Your task to perform on an android device: Add "razer deathadder" to the cart on newegg.com, then select checkout. Image 0: 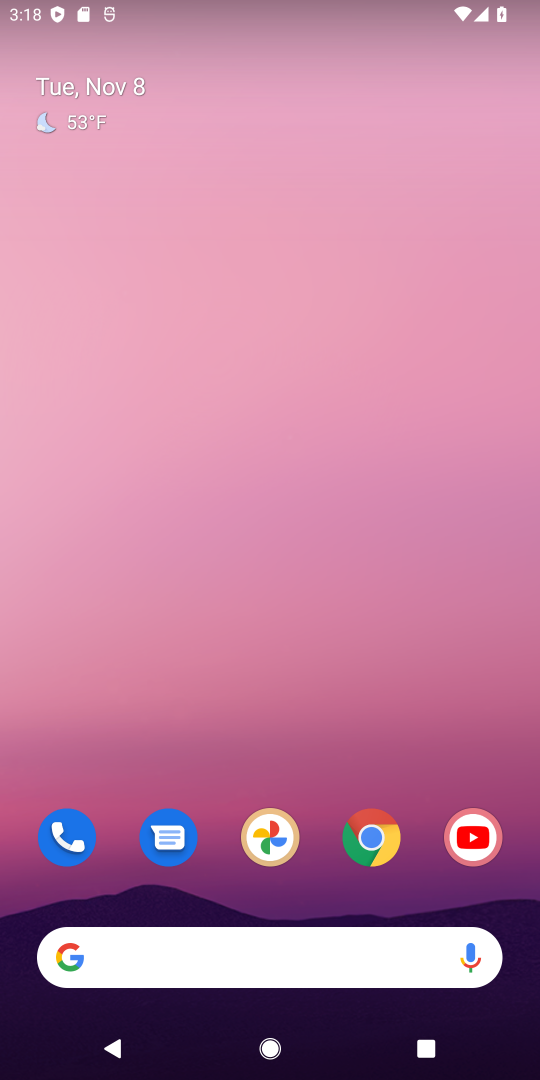
Step 0: click (363, 848)
Your task to perform on an android device: Add "razer deathadder" to the cart on newegg.com, then select checkout. Image 1: 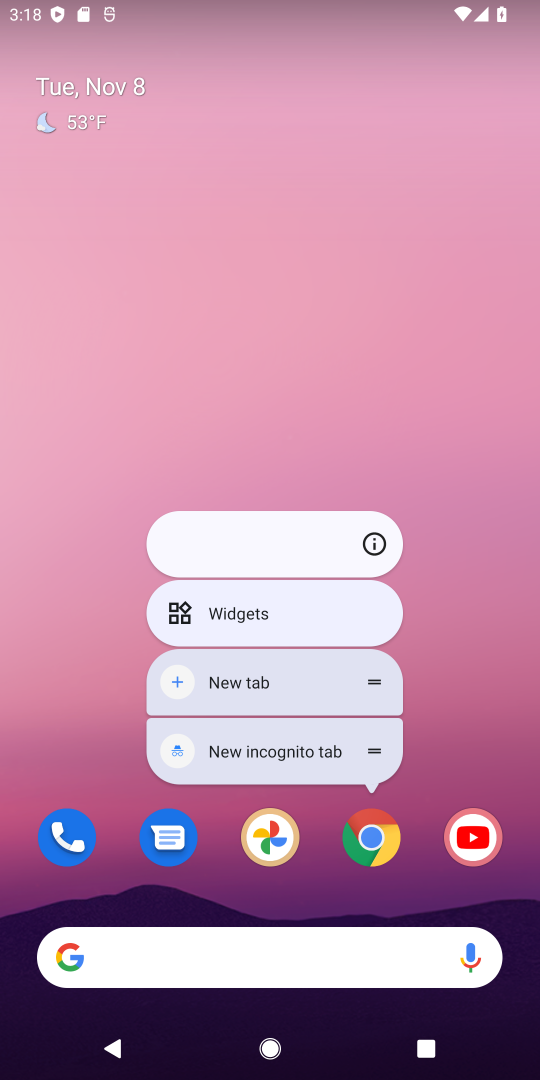
Step 1: click (363, 848)
Your task to perform on an android device: Add "razer deathadder" to the cart on newegg.com, then select checkout. Image 2: 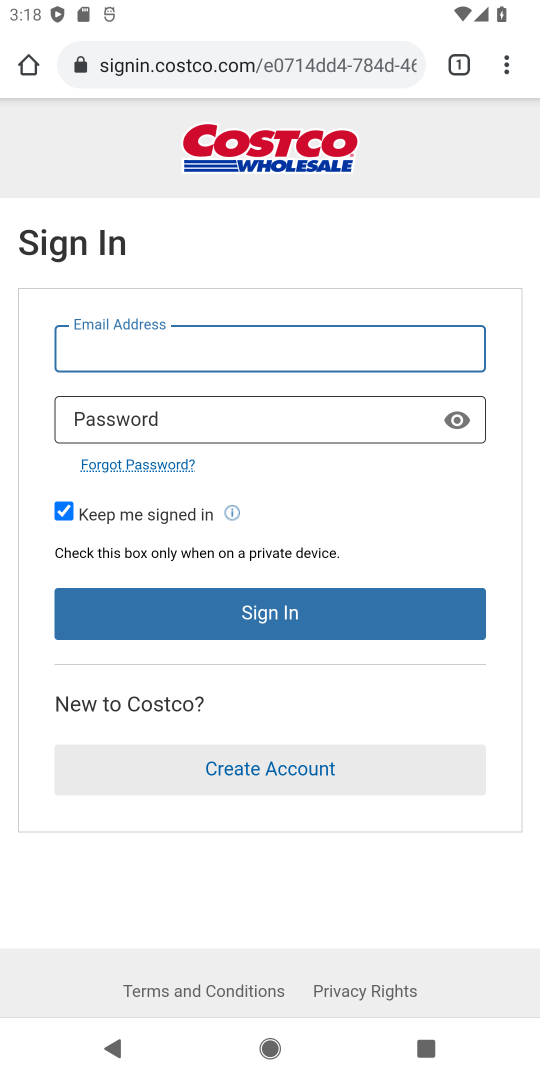
Step 2: click (122, 64)
Your task to perform on an android device: Add "razer deathadder" to the cart on newegg.com, then select checkout. Image 3: 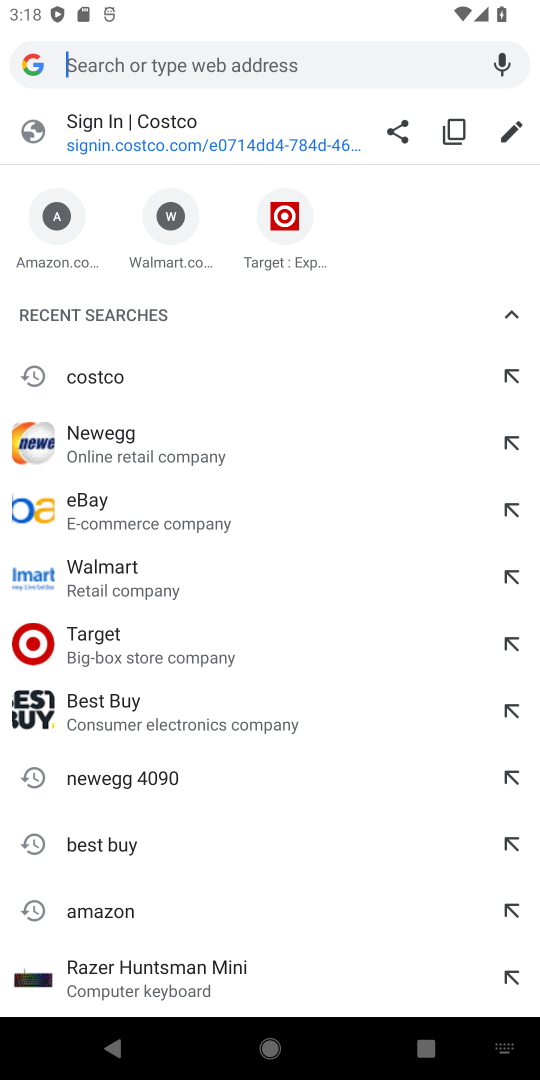
Step 3: click (121, 453)
Your task to perform on an android device: Add "razer deathadder" to the cart on newegg.com, then select checkout. Image 4: 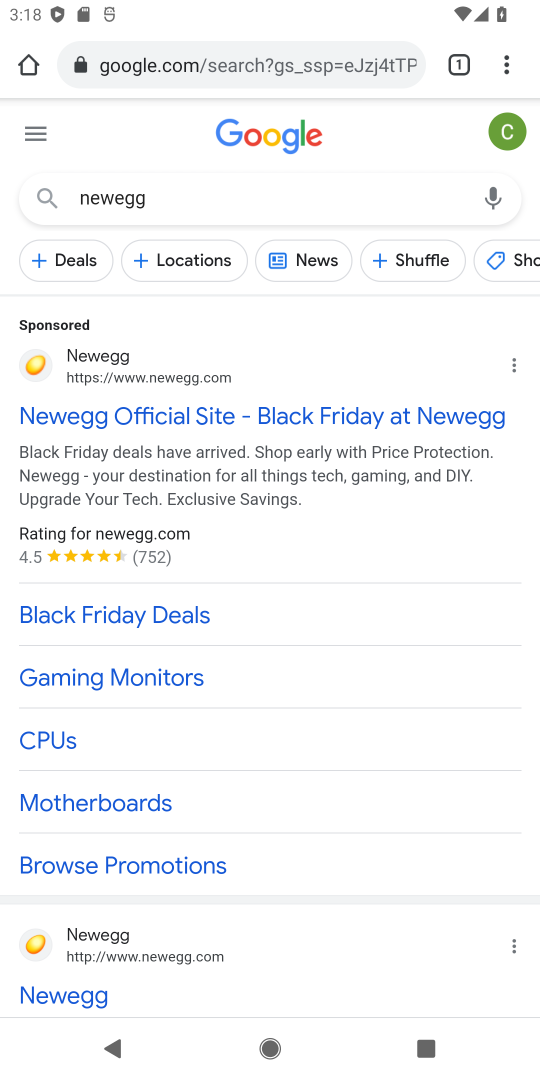
Step 4: click (79, 1004)
Your task to perform on an android device: Add "razer deathadder" to the cart on newegg.com, then select checkout. Image 5: 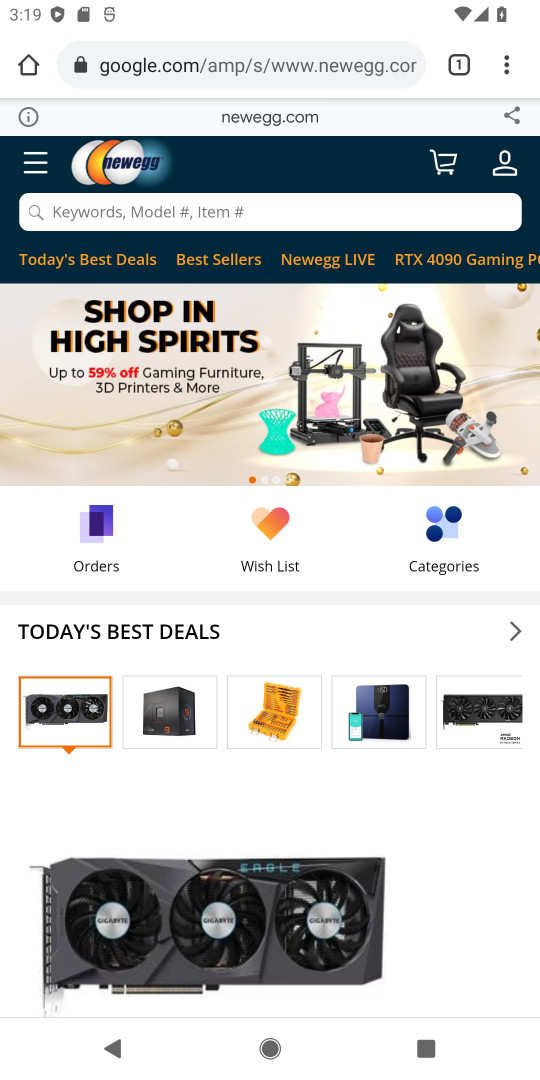
Step 5: click (179, 219)
Your task to perform on an android device: Add "razer deathadder" to the cart on newegg.com, then select checkout. Image 6: 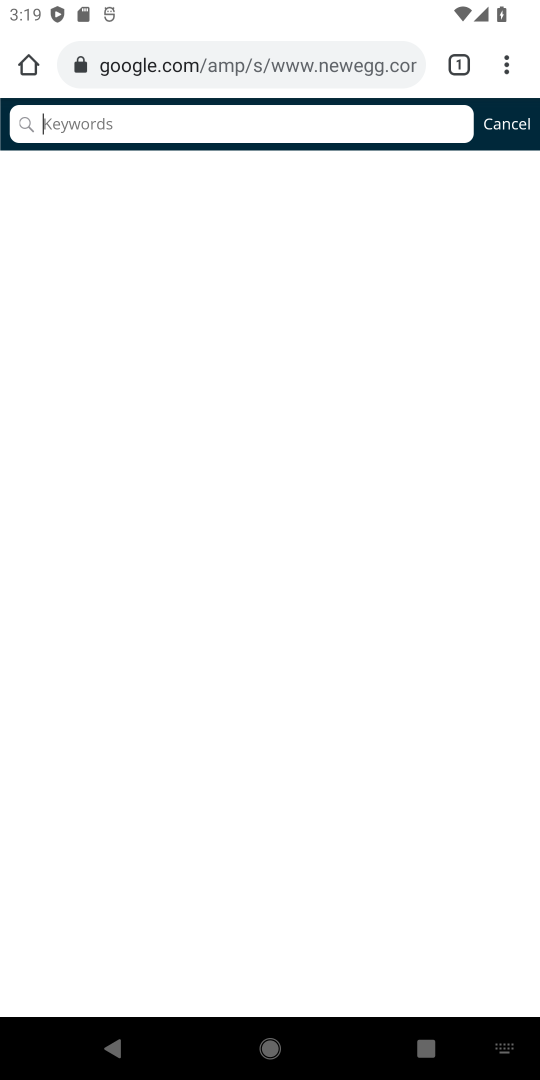
Step 6: type "razer deathadder"
Your task to perform on an android device: Add "razer deathadder" to the cart on newegg.com, then select checkout. Image 7: 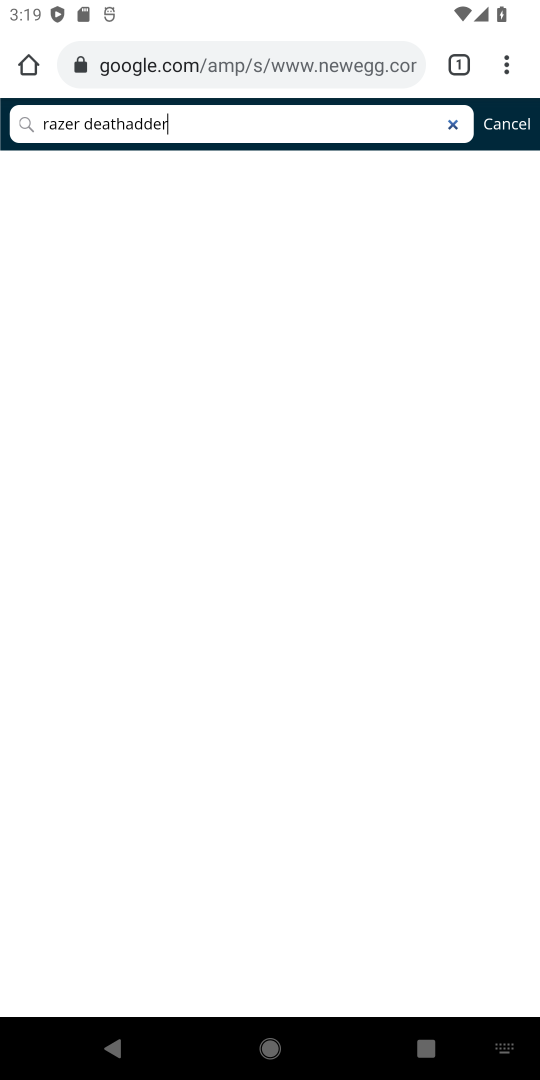
Step 7: type ""
Your task to perform on an android device: Add "razer deathadder" to the cart on newegg.com, then select checkout. Image 8: 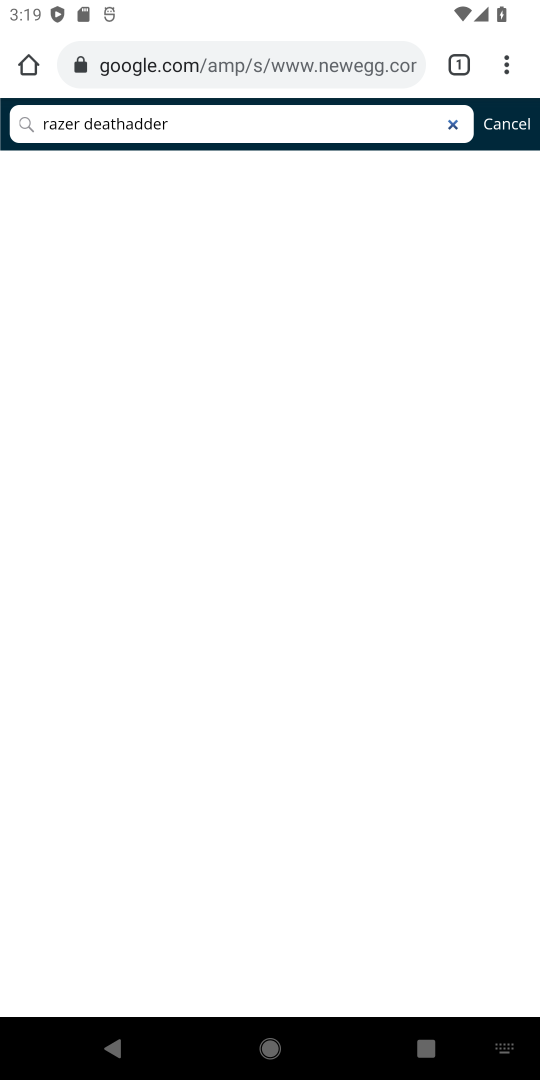
Step 8: click (447, 121)
Your task to perform on an android device: Add "razer deathadder" to the cart on newegg.com, then select checkout. Image 9: 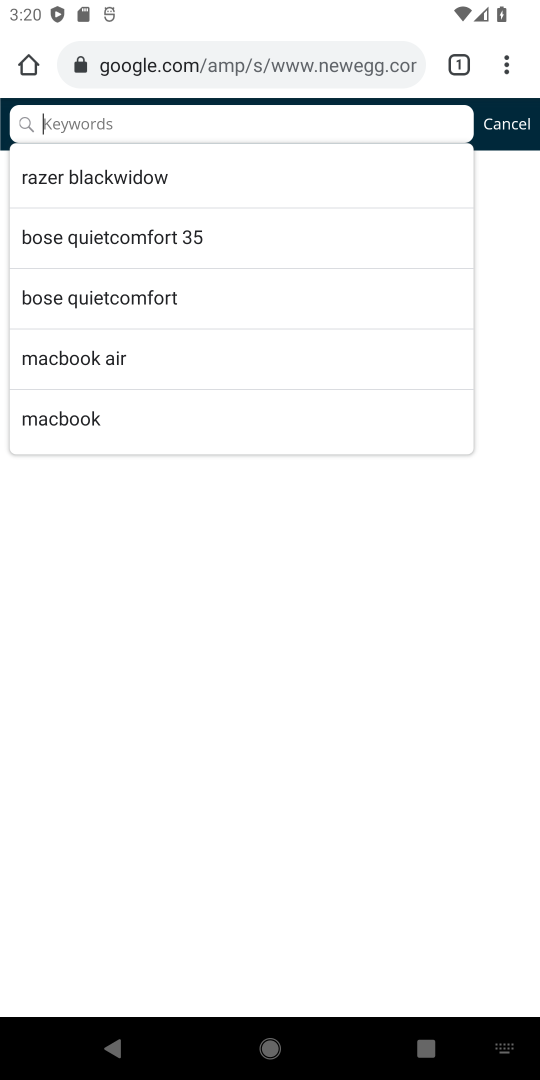
Step 9: type "razer deathadder"
Your task to perform on an android device: Add "razer deathadder" to the cart on newegg.com, then select checkout. Image 10: 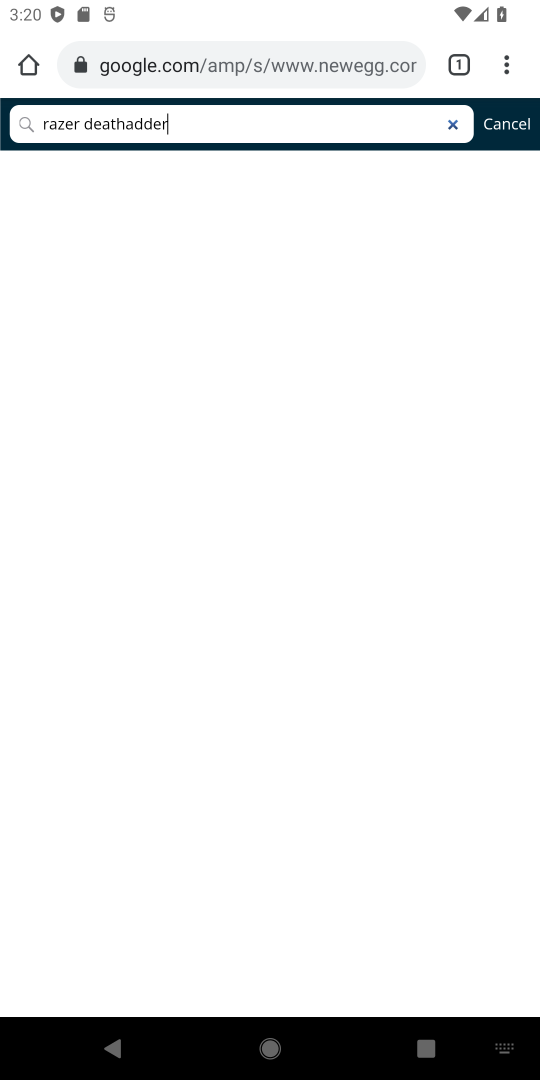
Step 10: click (15, 119)
Your task to perform on an android device: Add "razer deathadder" to the cart on newegg.com, then select checkout. Image 11: 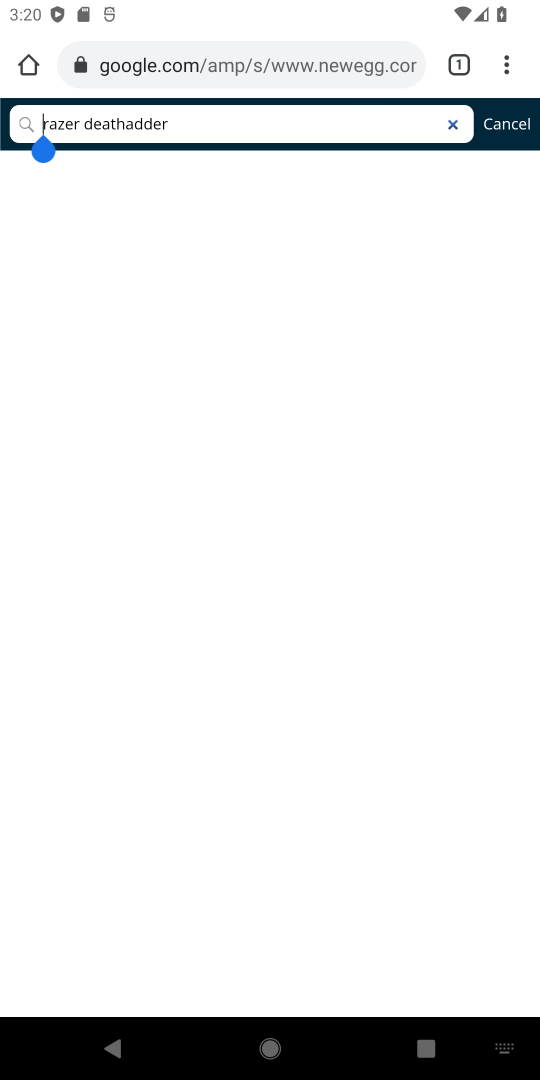
Step 11: click (210, 130)
Your task to perform on an android device: Add "razer deathadder" to the cart on newegg.com, then select checkout. Image 12: 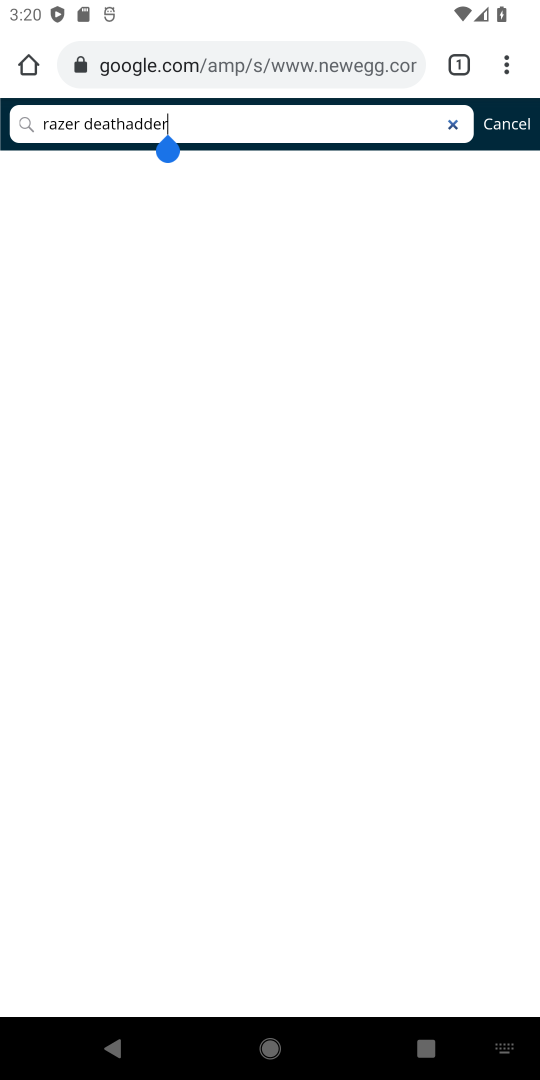
Step 12: click (209, 130)
Your task to perform on an android device: Add "razer deathadder" to the cart on newegg.com, then select checkout. Image 13: 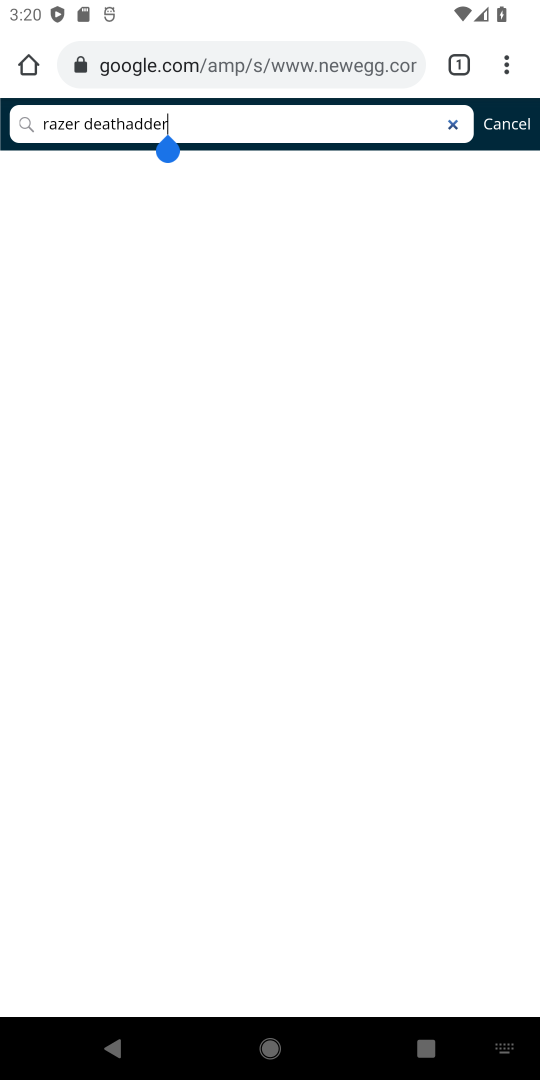
Step 13: click (453, 126)
Your task to perform on an android device: Add "razer deathadder" to the cart on newegg.com, then select checkout. Image 14: 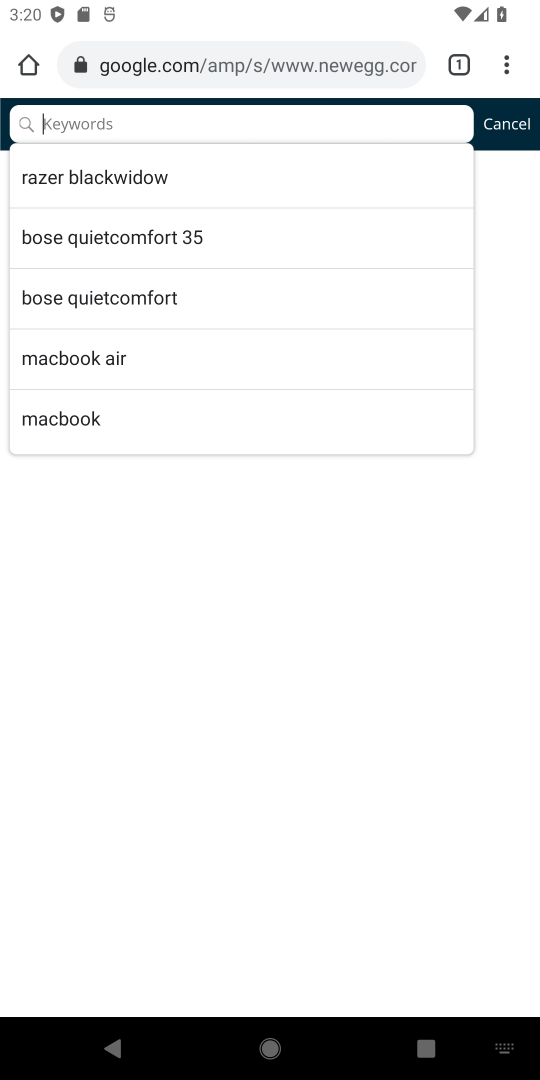
Step 14: click (195, 58)
Your task to perform on an android device: Add "razer deathadder" to the cart on newegg.com, then select checkout. Image 15: 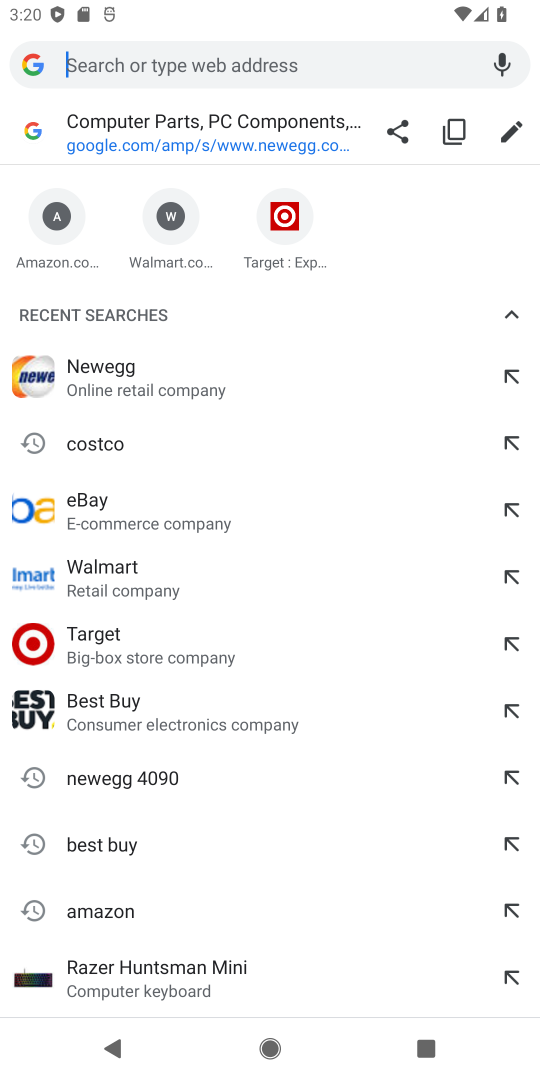
Step 15: click (100, 373)
Your task to perform on an android device: Add "razer deathadder" to the cart on newegg.com, then select checkout. Image 16: 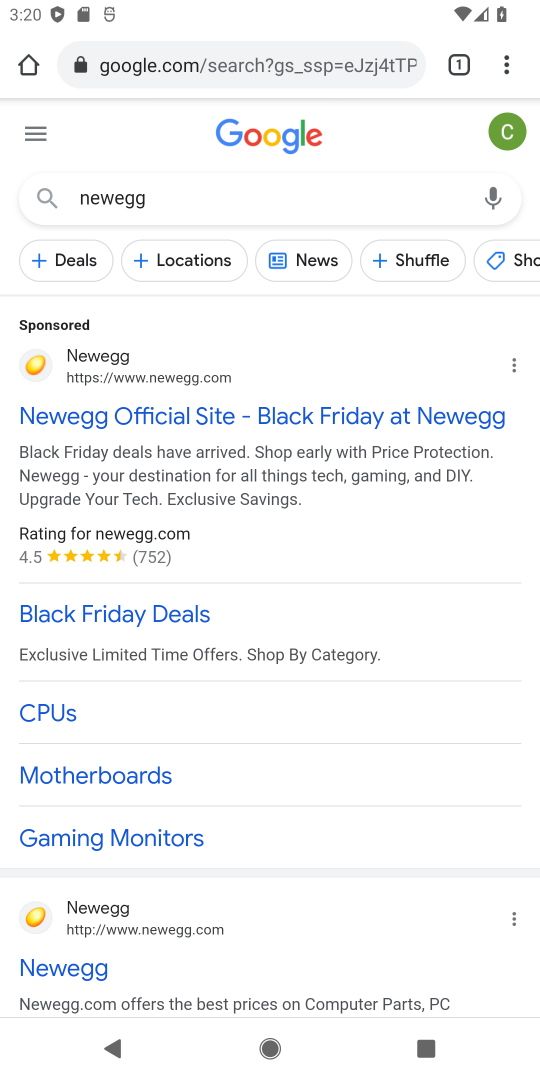
Step 16: drag from (279, 679) to (237, 335)
Your task to perform on an android device: Add "razer deathadder" to the cart on newegg.com, then select checkout. Image 17: 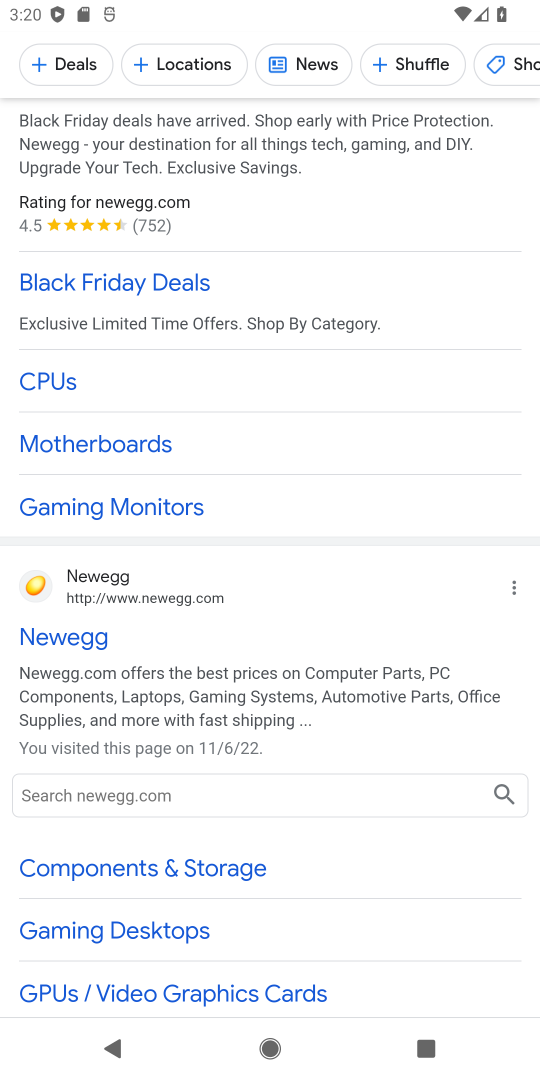
Step 17: click (78, 633)
Your task to perform on an android device: Add "razer deathadder" to the cart on newegg.com, then select checkout. Image 18: 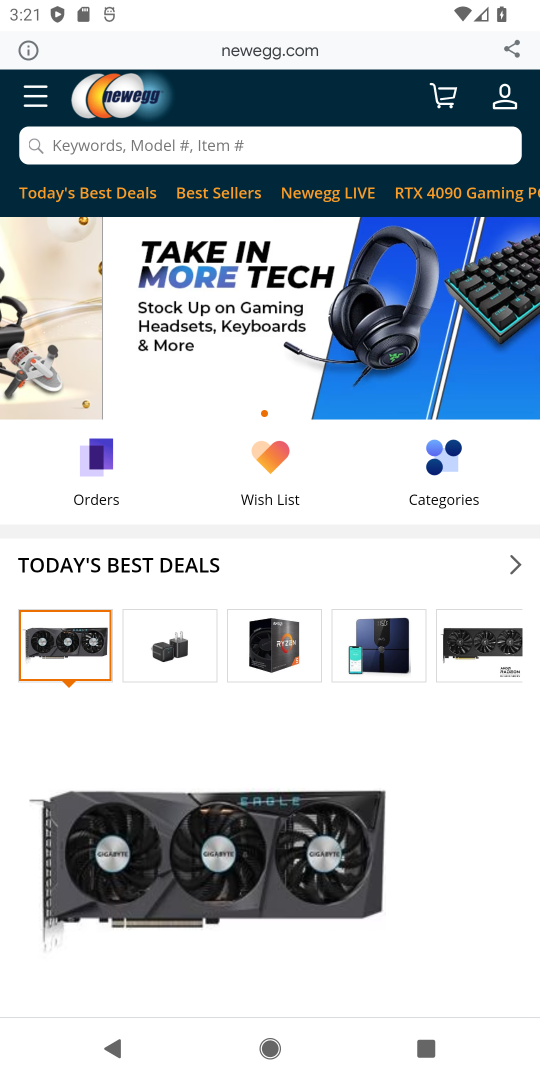
Step 18: click (173, 142)
Your task to perform on an android device: Add "razer deathadder" to the cart on newegg.com, then select checkout. Image 19: 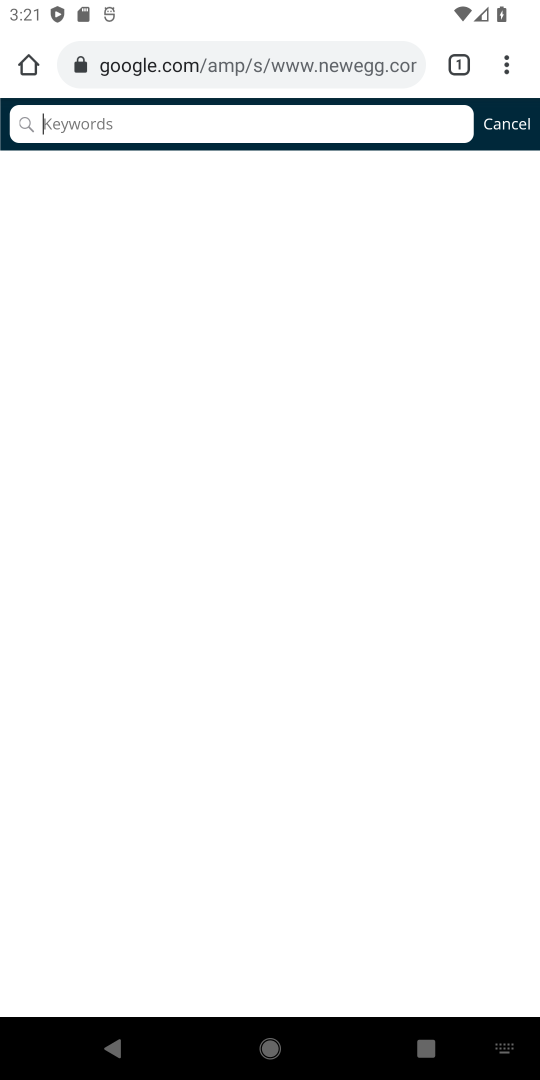
Step 19: click (65, 130)
Your task to perform on an android device: Add "razer deathadder" to the cart on newegg.com, then select checkout. Image 20: 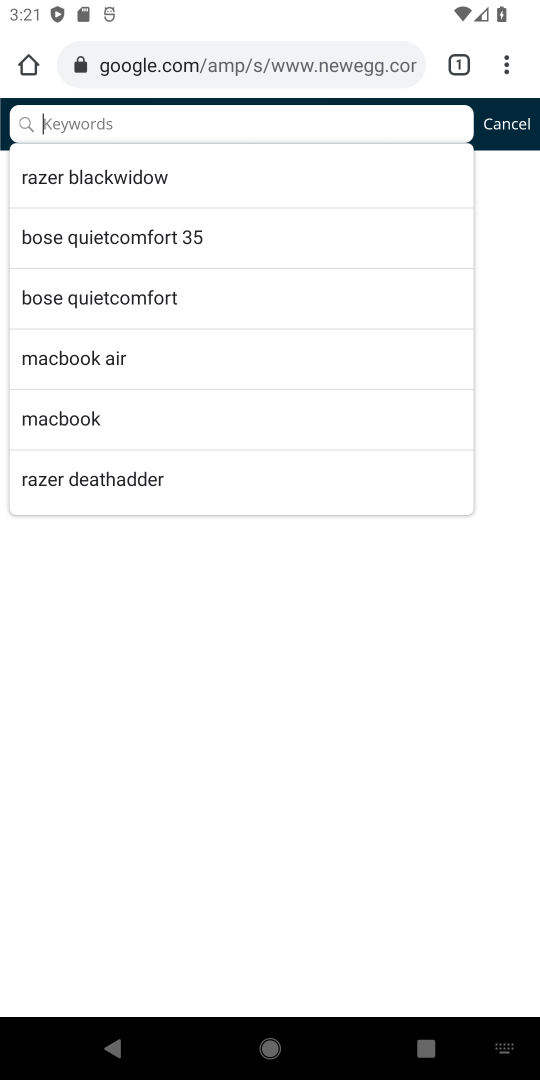
Step 20: click (129, 479)
Your task to perform on an android device: Add "razer deathadder" to the cart on newegg.com, then select checkout. Image 21: 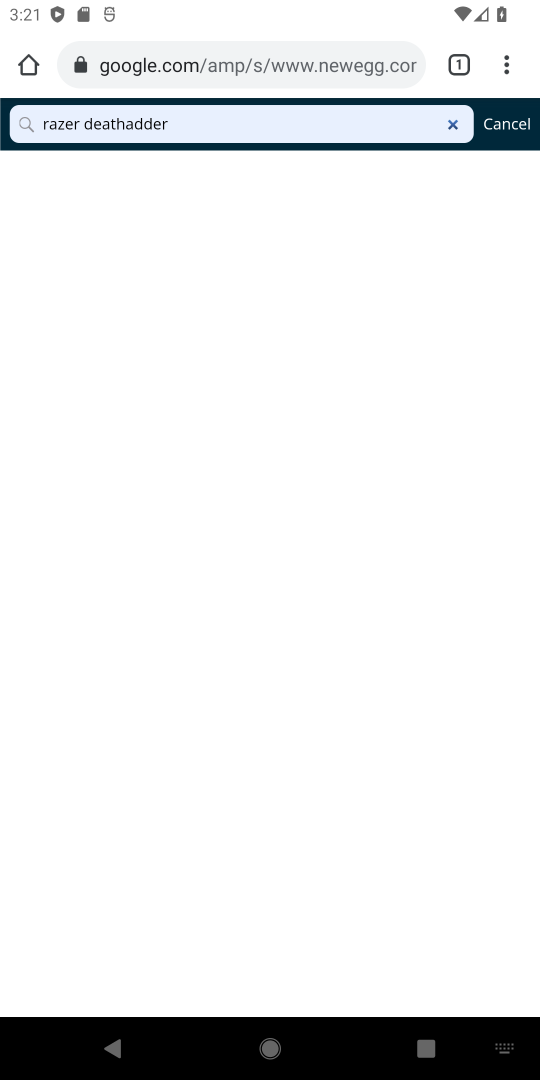
Step 21: click (21, 126)
Your task to perform on an android device: Add "razer deathadder" to the cart on newegg.com, then select checkout. Image 22: 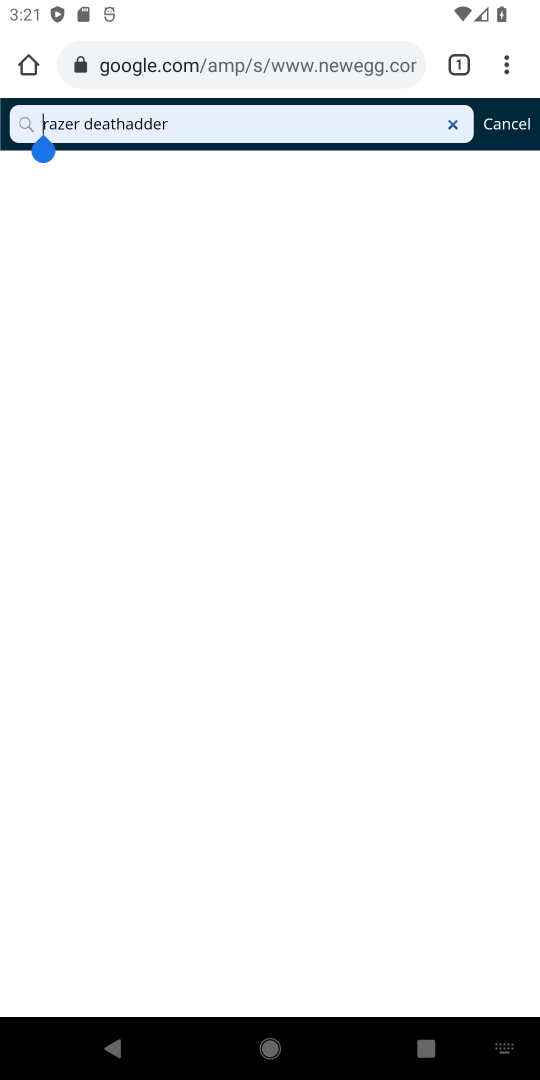
Step 22: click (457, 123)
Your task to perform on an android device: Add "razer deathadder" to the cart on newegg.com, then select checkout. Image 23: 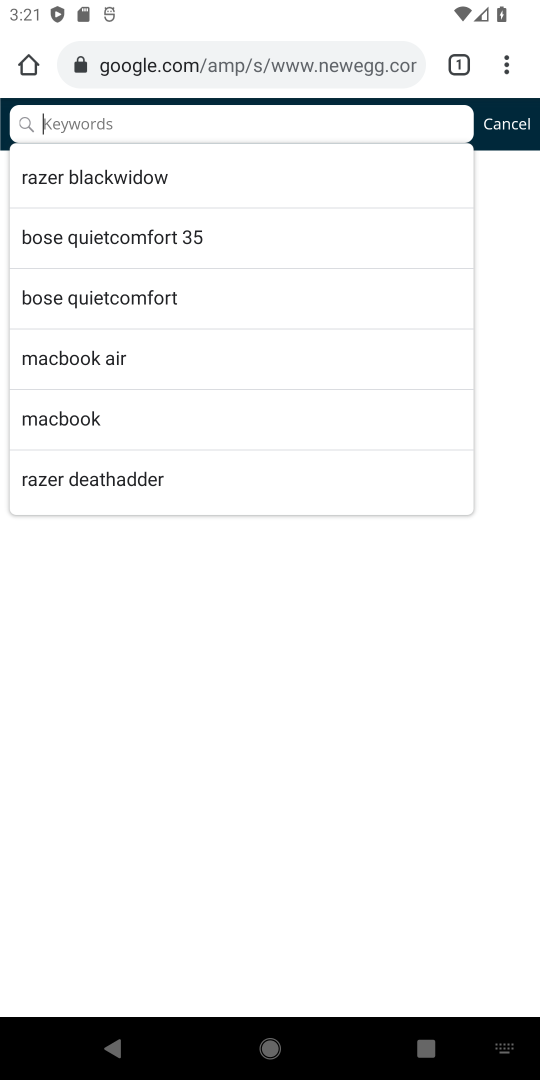
Step 23: click (96, 478)
Your task to perform on an android device: Add "razer deathadder" to the cart on newegg.com, then select checkout. Image 24: 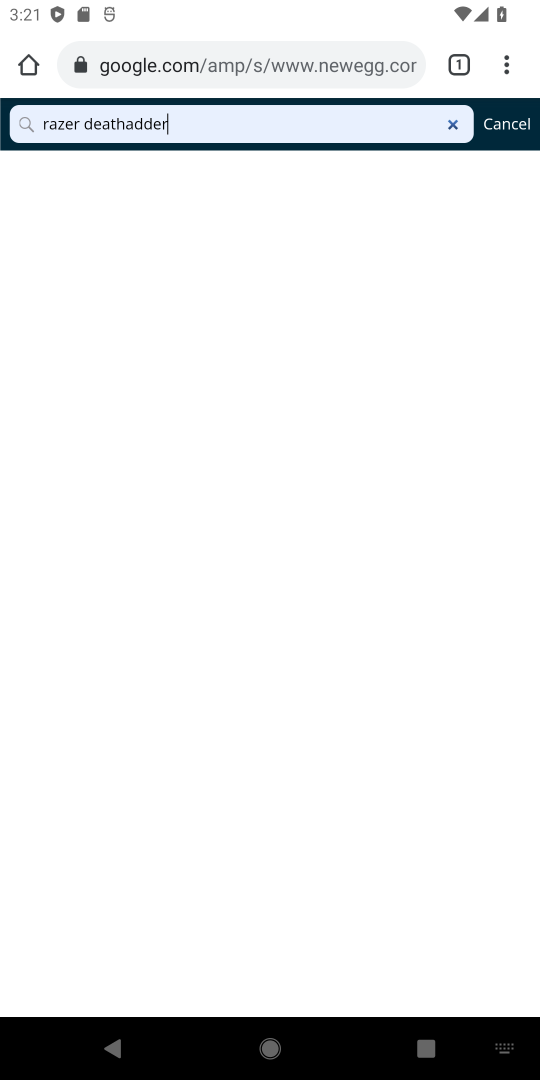
Step 24: click (26, 127)
Your task to perform on an android device: Add "razer deathadder" to the cart on newegg.com, then select checkout. Image 25: 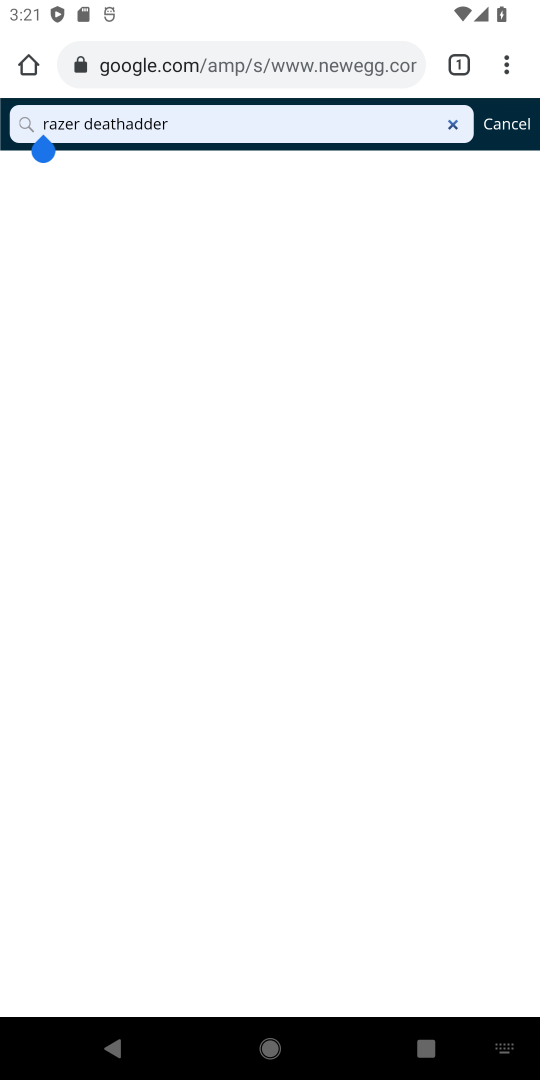
Step 25: click (455, 122)
Your task to perform on an android device: Add "razer deathadder" to the cart on newegg.com, then select checkout. Image 26: 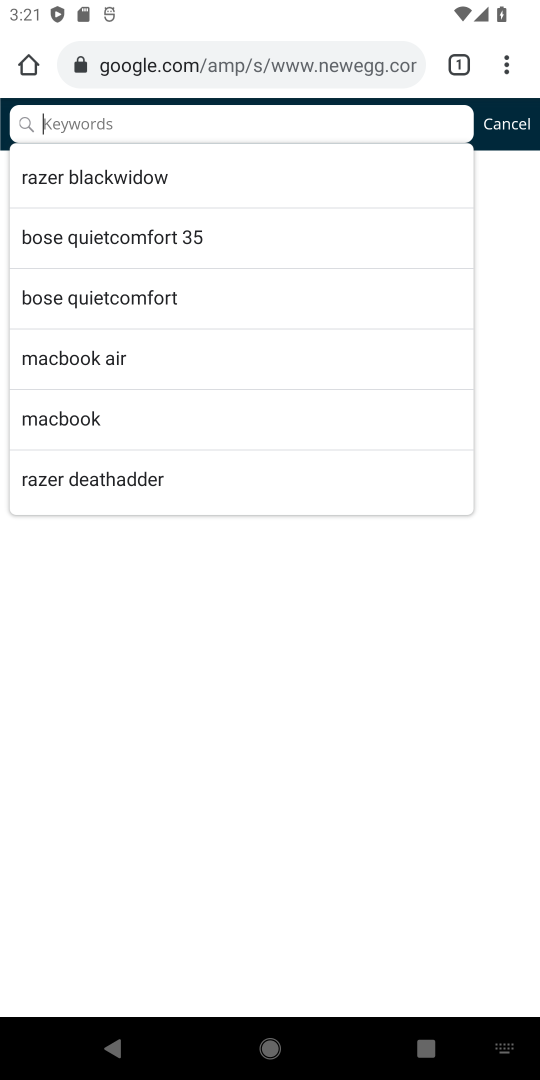
Step 26: click (143, 480)
Your task to perform on an android device: Add "razer deathadder" to the cart on newegg.com, then select checkout. Image 27: 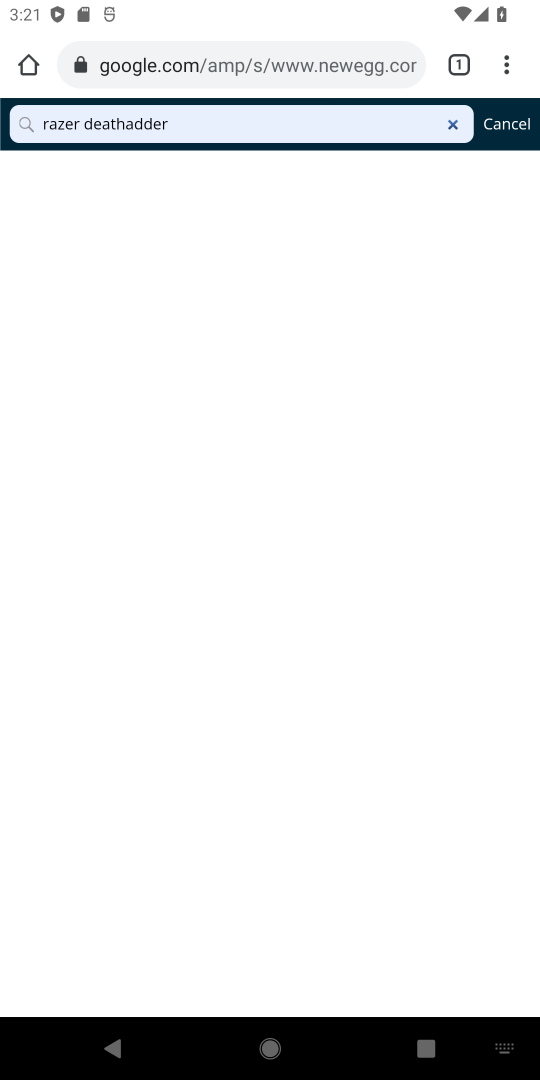
Step 27: click (14, 119)
Your task to perform on an android device: Add "razer deathadder" to the cart on newegg.com, then select checkout. Image 28: 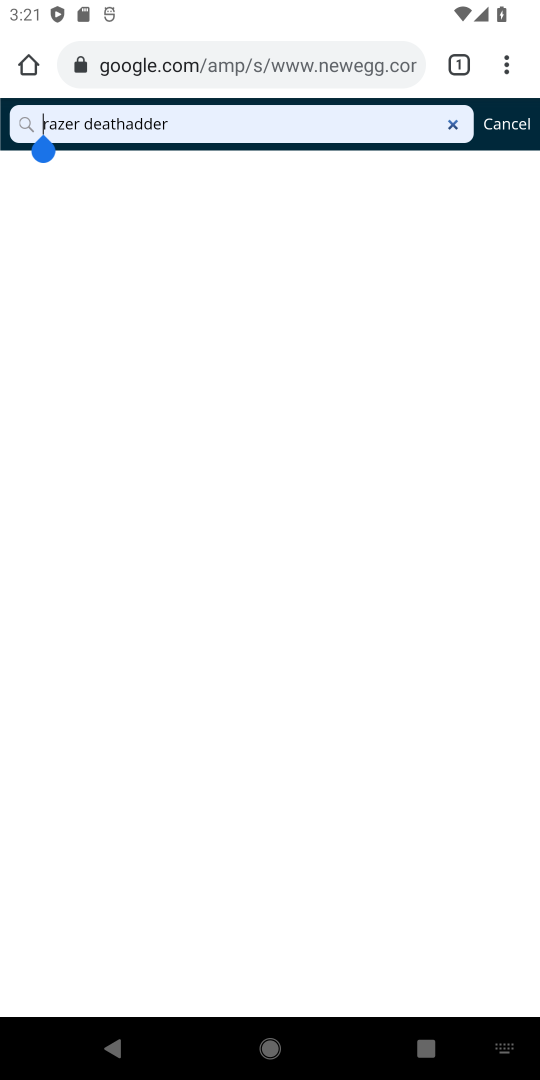
Step 28: task complete